Your task to perform on an android device: check the backup settings in the google photos Image 0: 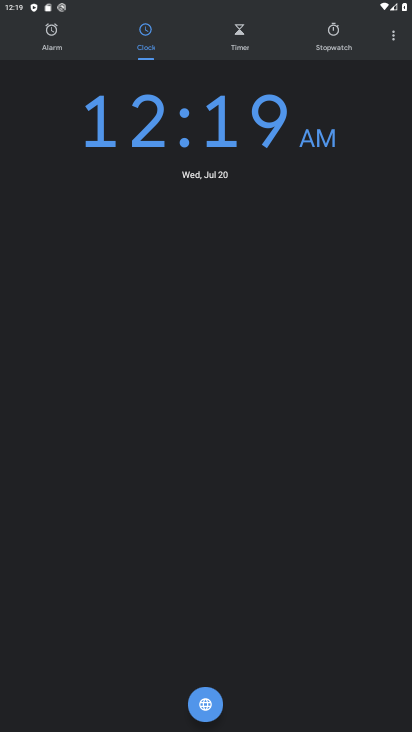
Step 0: press home button
Your task to perform on an android device: check the backup settings in the google photos Image 1: 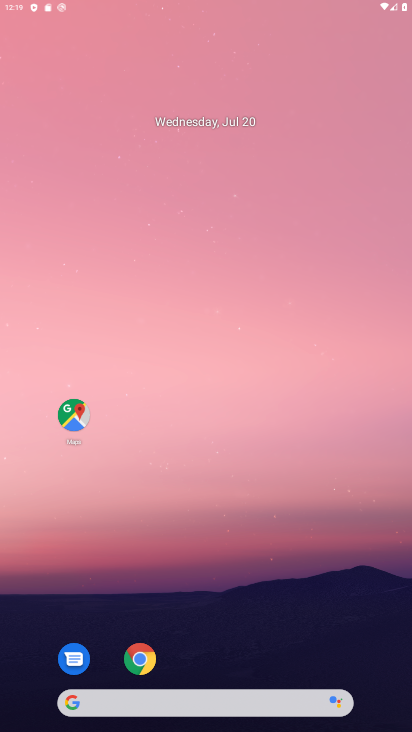
Step 1: drag from (369, 687) to (191, 53)
Your task to perform on an android device: check the backup settings in the google photos Image 2: 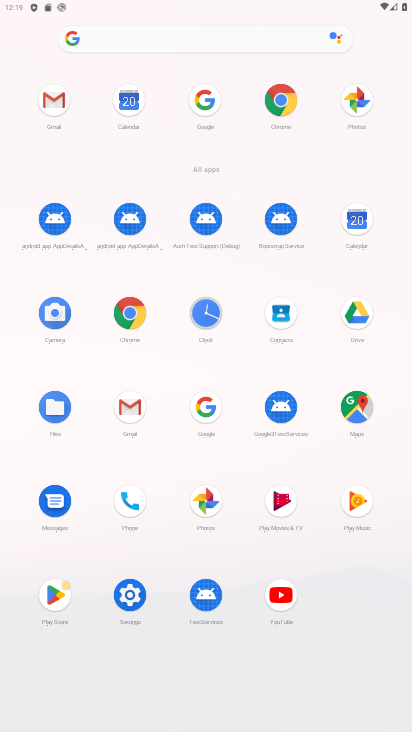
Step 2: click (211, 498)
Your task to perform on an android device: check the backup settings in the google photos Image 3: 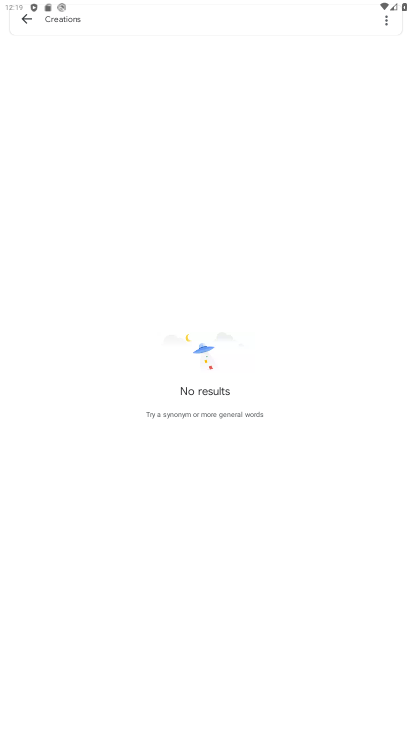
Step 3: press back button
Your task to perform on an android device: check the backup settings in the google photos Image 4: 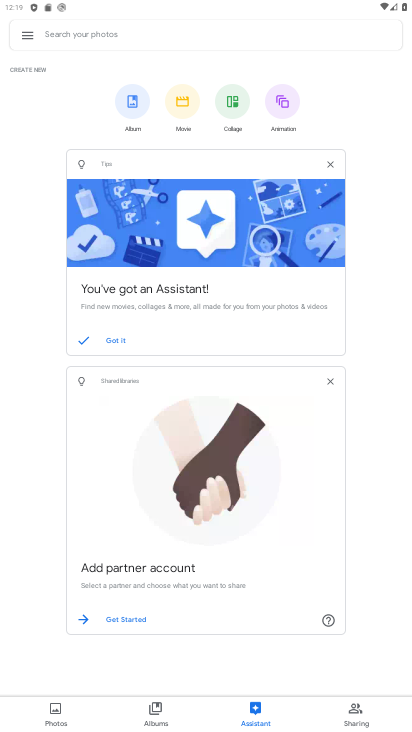
Step 4: click (26, 33)
Your task to perform on an android device: check the backup settings in the google photos Image 5: 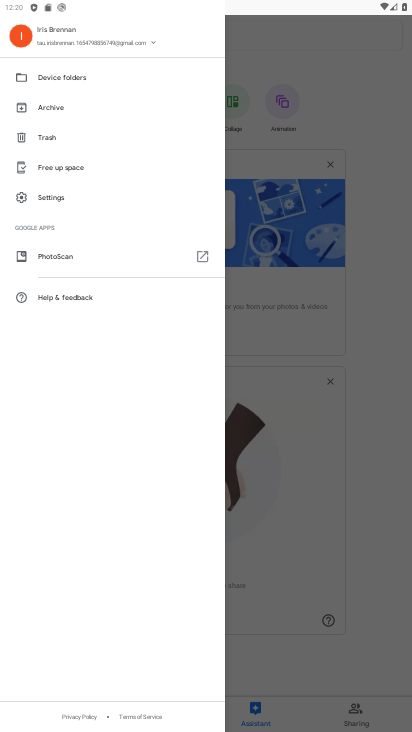
Step 5: click (46, 206)
Your task to perform on an android device: check the backup settings in the google photos Image 6: 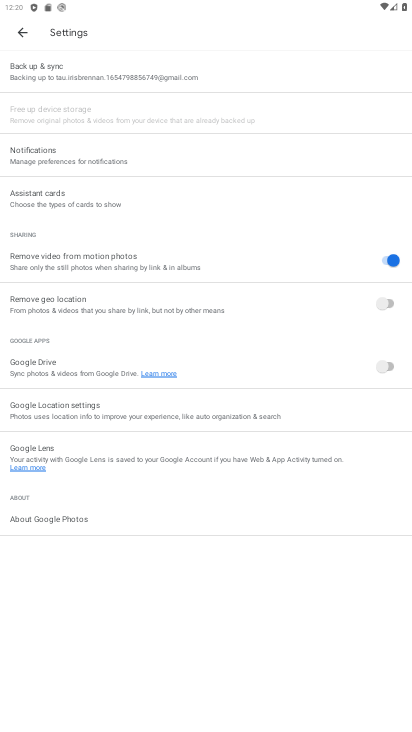
Step 6: click (131, 88)
Your task to perform on an android device: check the backup settings in the google photos Image 7: 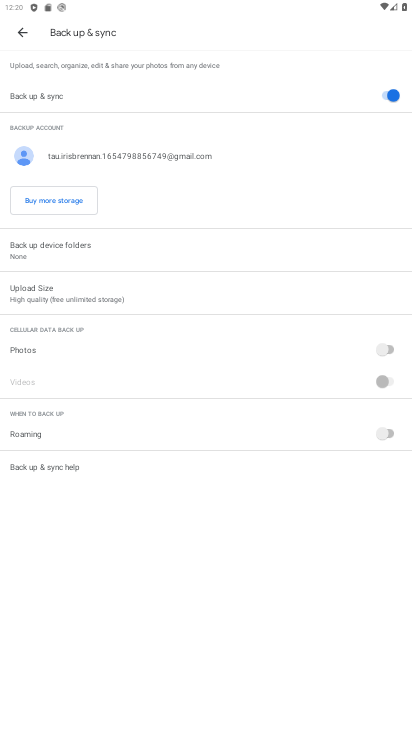
Step 7: task complete